Your task to perform on an android device: check battery use Image 0: 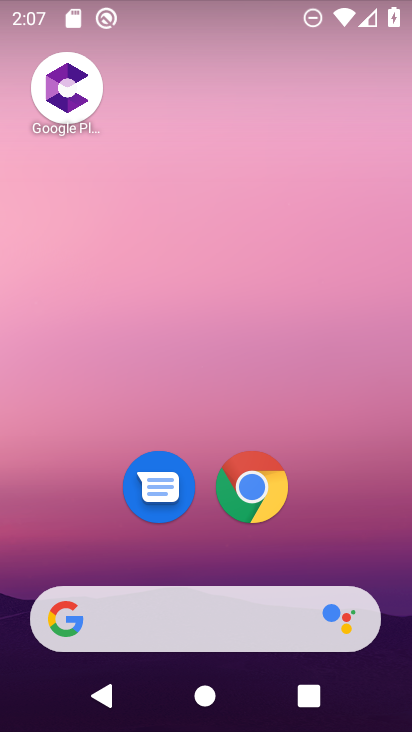
Step 0: drag from (366, 537) to (389, 67)
Your task to perform on an android device: check battery use Image 1: 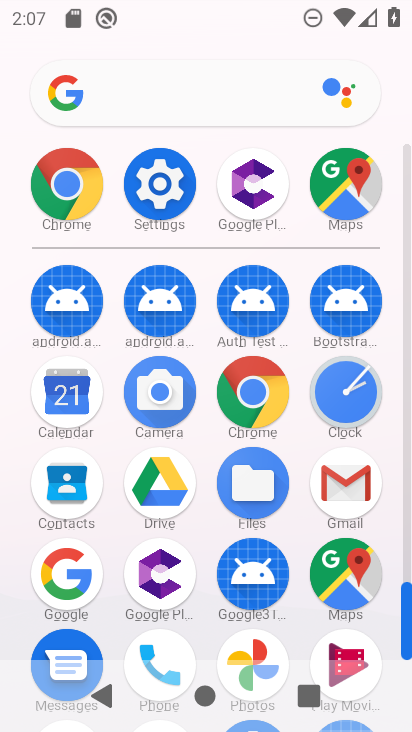
Step 1: click (156, 209)
Your task to perform on an android device: check battery use Image 2: 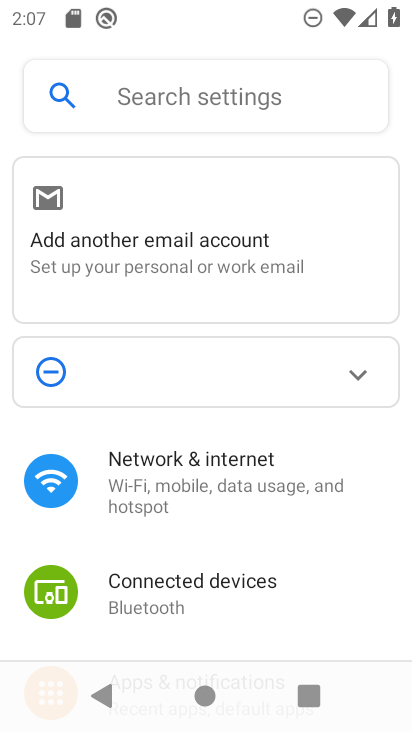
Step 2: drag from (321, 503) to (318, 203)
Your task to perform on an android device: check battery use Image 3: 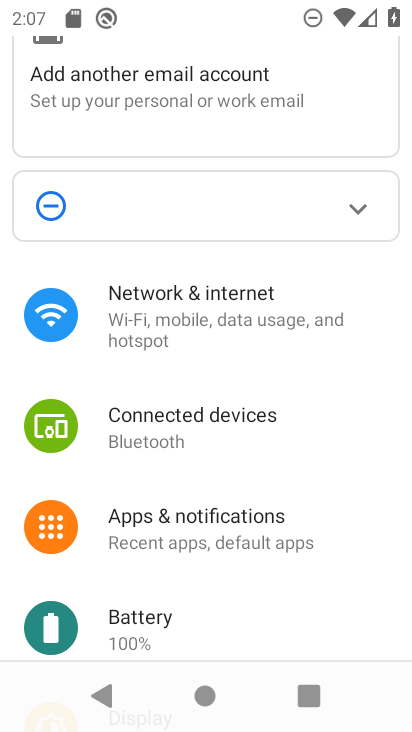
Step 3: drag from (252, 599) to (278, 281)
Your task to perform on an android device: check battery use Image 4: 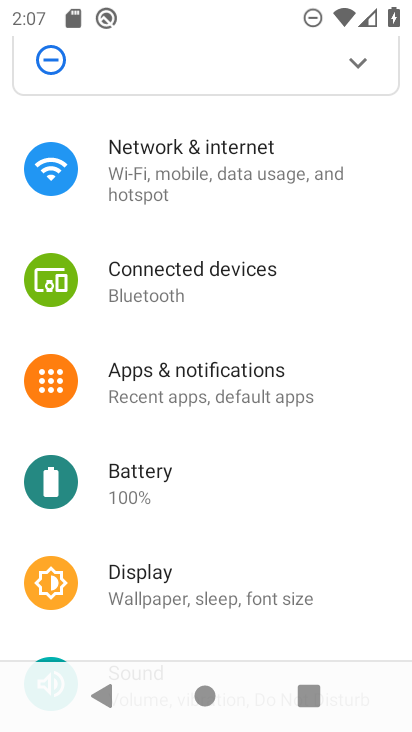
Step 4: click (164, 487)
Your task to perform on an android device: check battery use Image 5: 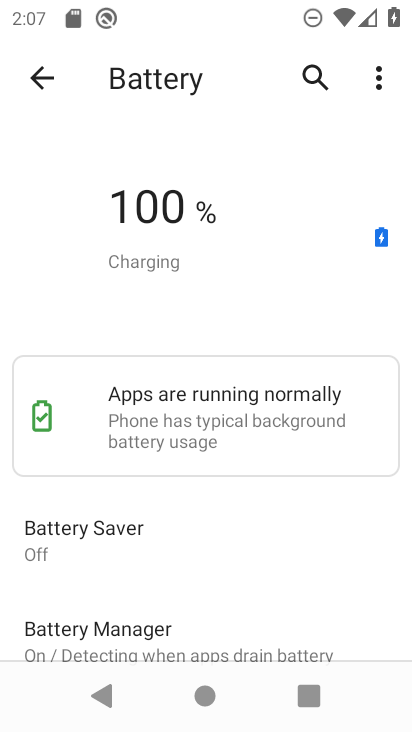
Step 5: task complete